Your task to perform on an android device: What is the recent news? Image 0: 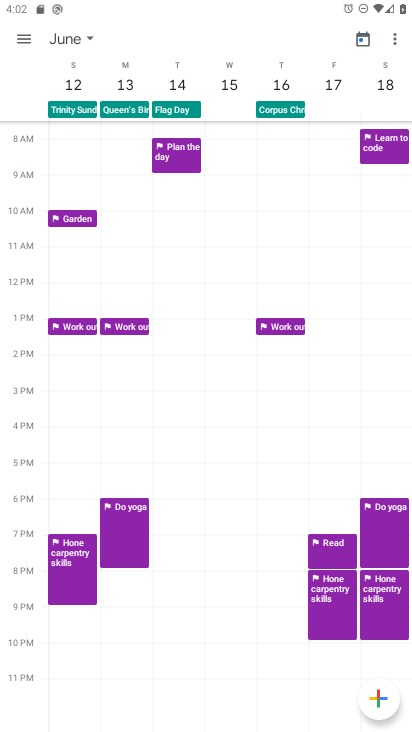
Step 0: press home button
Your task to perform on an android device: What is the recent news? Image 1: 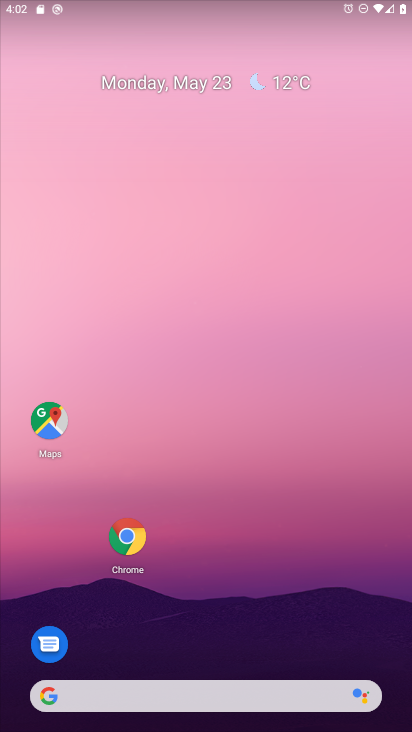
Step 1: click (123, 534)
Your task to perform on an android device: What is the recent news? Image 2: 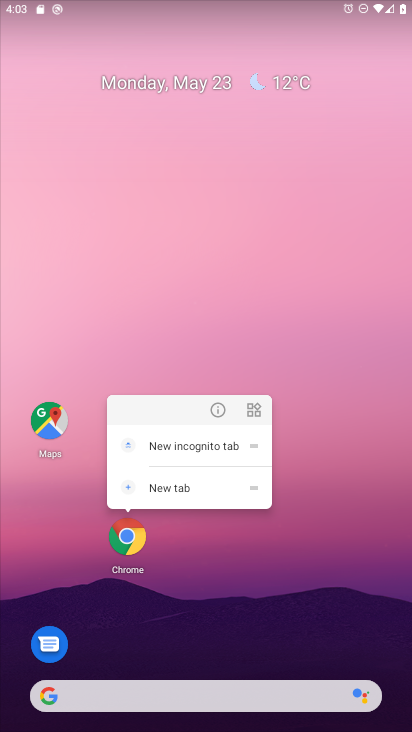
Step 2: click (238, 597)
Your task to perform on an android device: What is the recent news? Image 3: 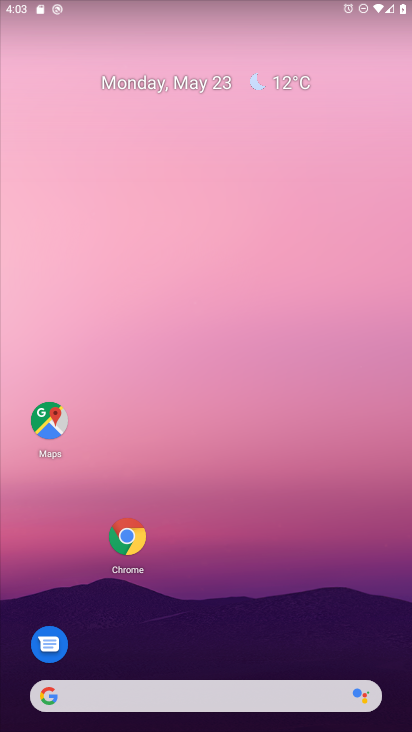
Step 3: drag from (338, 549) to (358, 28)
Your task to perform on an android device: What is the recent news? Image 4: 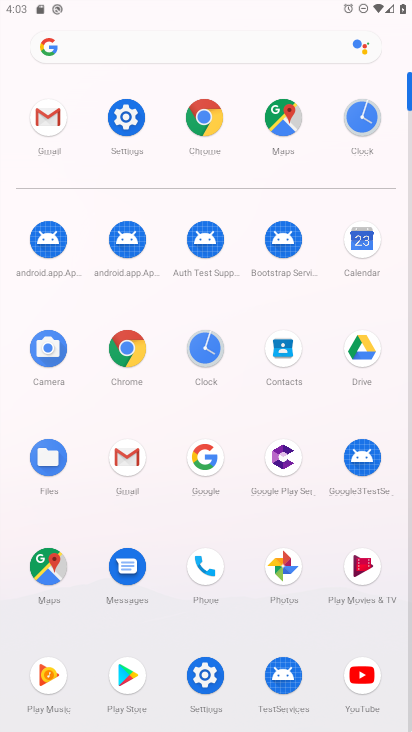
Step 4: click (121, 355)
Your task to perform on an android device: What is the recent news? Image 5: 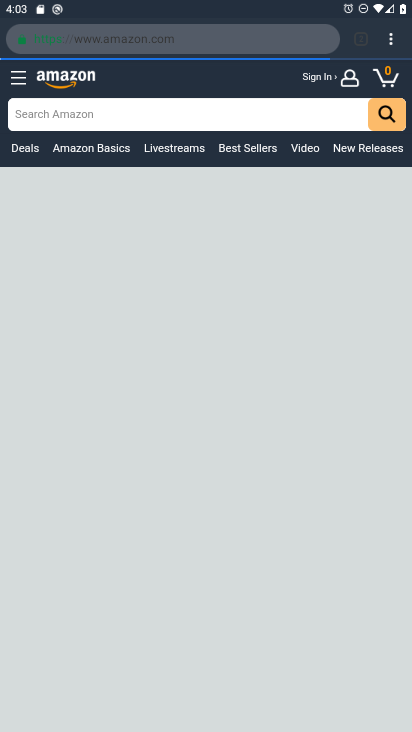
Step 5: click (146, 42)
Your task to perform on an android device: What is the recent news? Image 6: 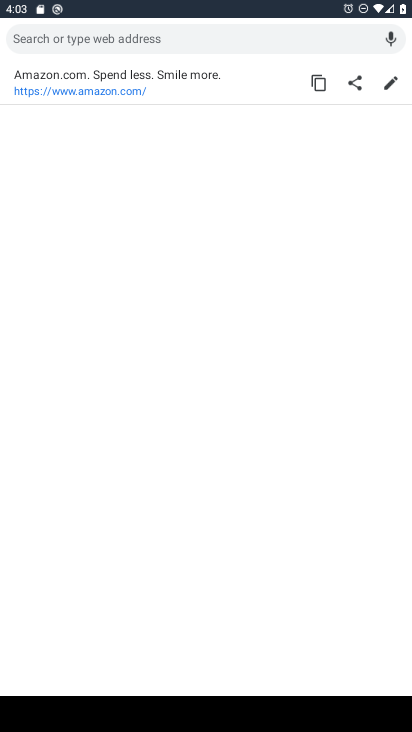
Step 6: type "news"
Your task to perform on an android device: What is the recent news? Image 7: 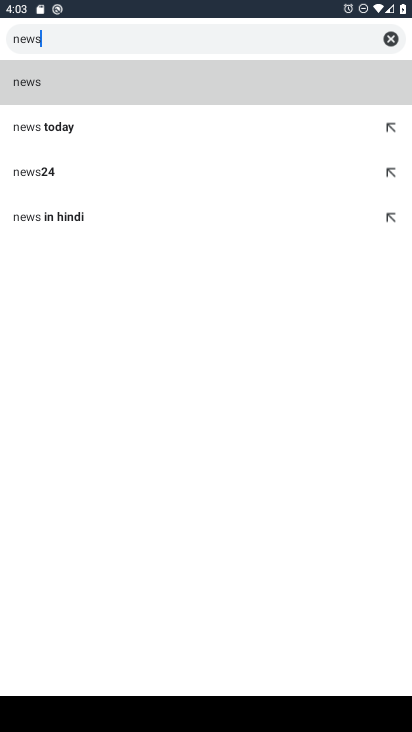
Step 7: click (29, 75)
Your task to perform on an android device: What is the recent news? Image 8: 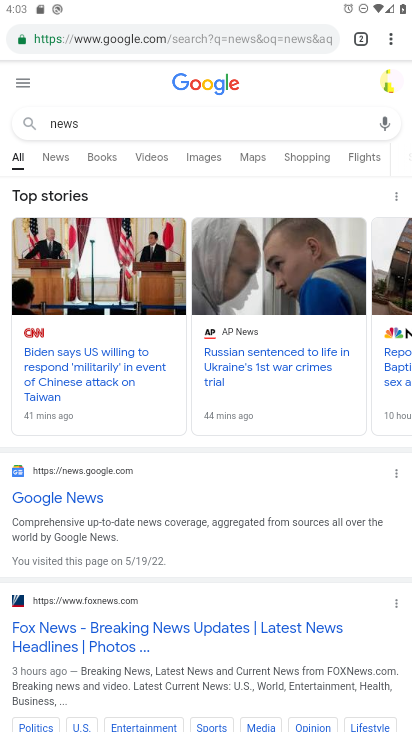
Step 8: click (66, 154)
Your task to perform on an android device: What is the recent news? Image 9: 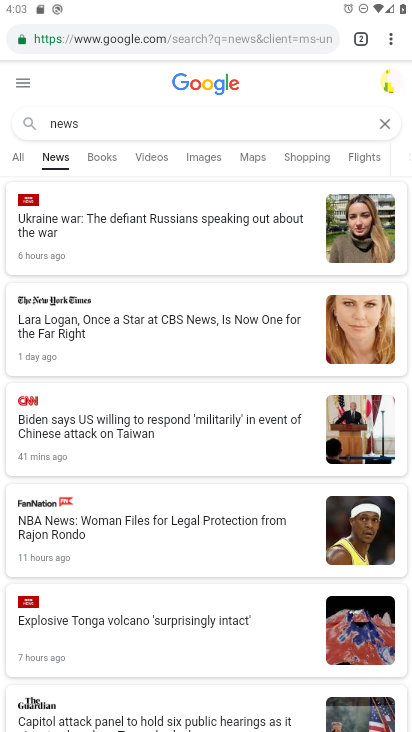
Step 9: task complete